Your task to perform on an android device: turn on bluetooth scan Image 0: 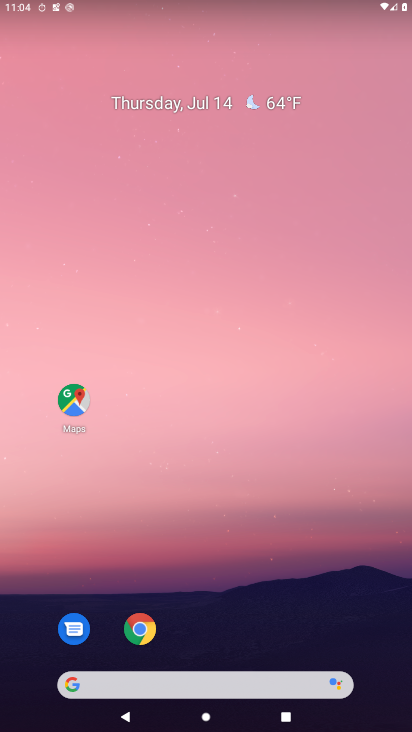
Step 0: drag from (204, 663) to (242, 170)
Your task to perform on an android device: turn on bluetooth scan Image 1: 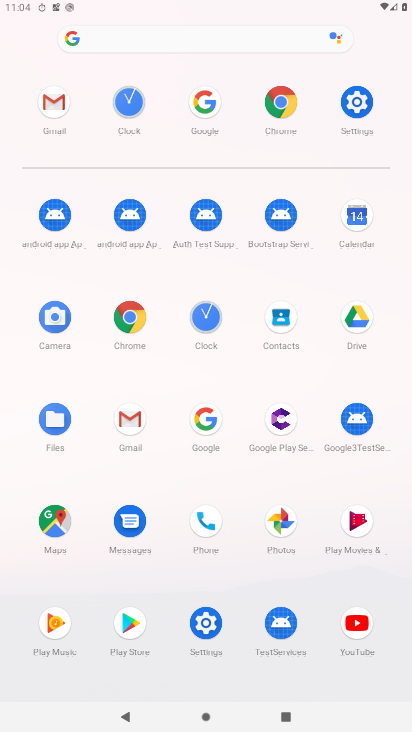
Step 1: click (349, 99)
Your task to perform on an android device: turn on bluetooth scan Image 2: 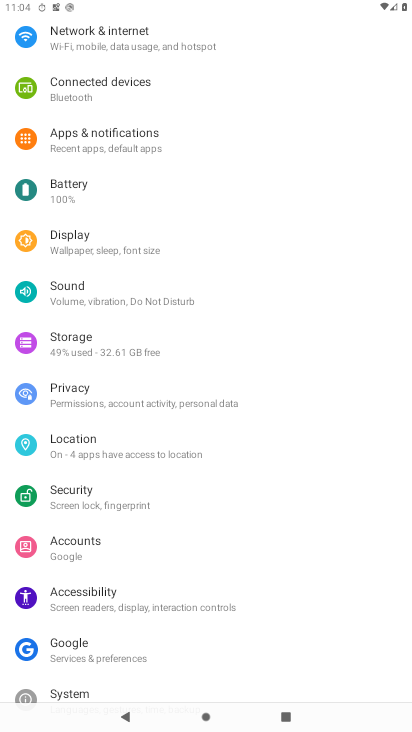
Step 2: click (68, 430)
Your task to perform on an android device: turn on bluetooth scan Image 3: 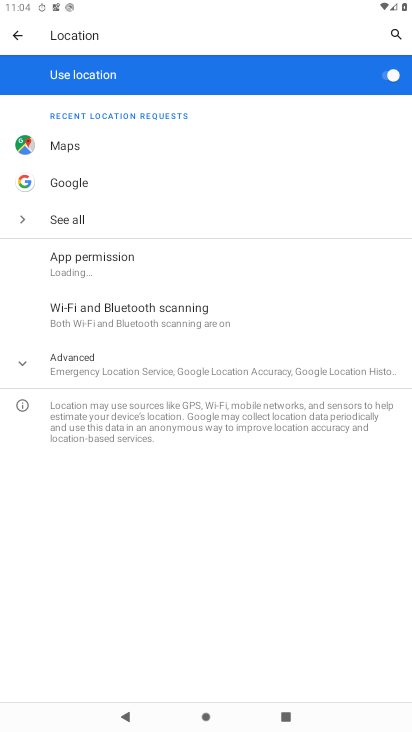
Step 3: click (119, 357)
Your task to perform on an android device: turn on bluetooth scan Image 4: 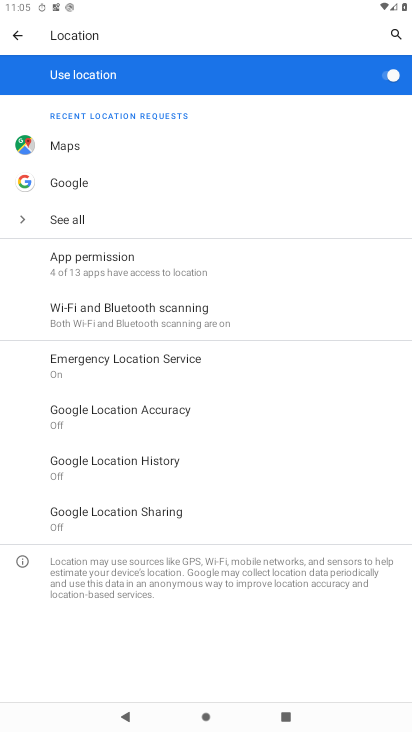
Step 4: click (113, 315)
Your task to perform on an android device: turn on bluetooth scan Image 5: 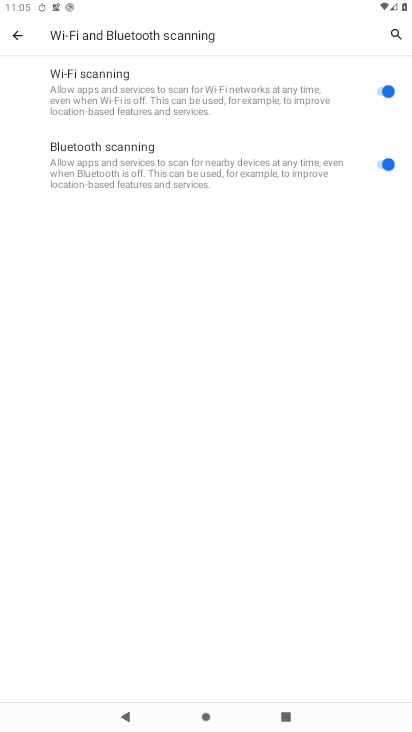
Step 5: task complete